Your task to perform on an android device: allow cookies in the chrome app Image 0: 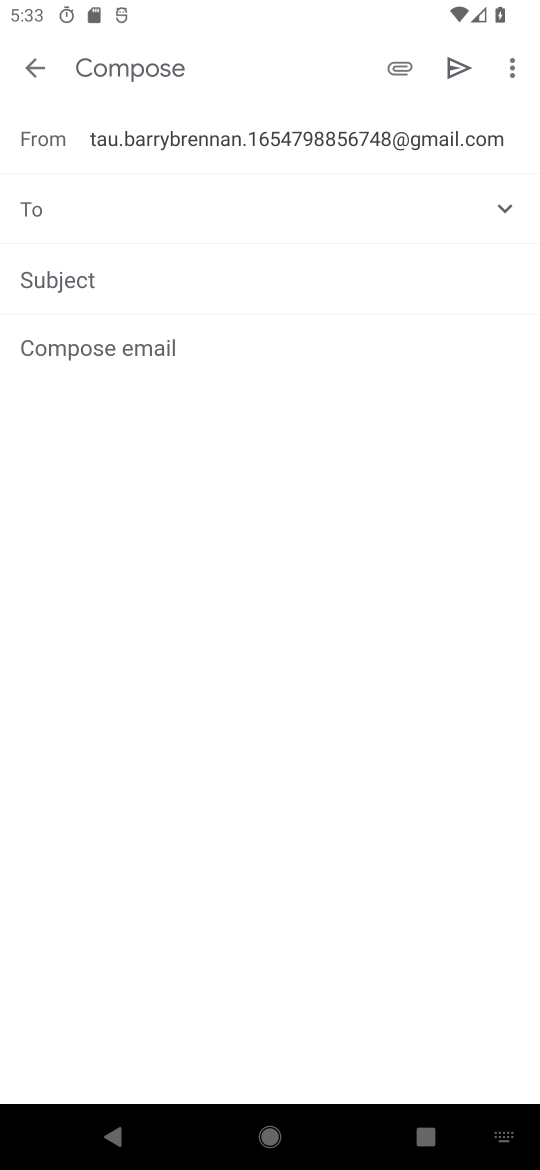
Step 0: press home button
Your task to perform on an android device: allow cookies in the chrome app Image 1: 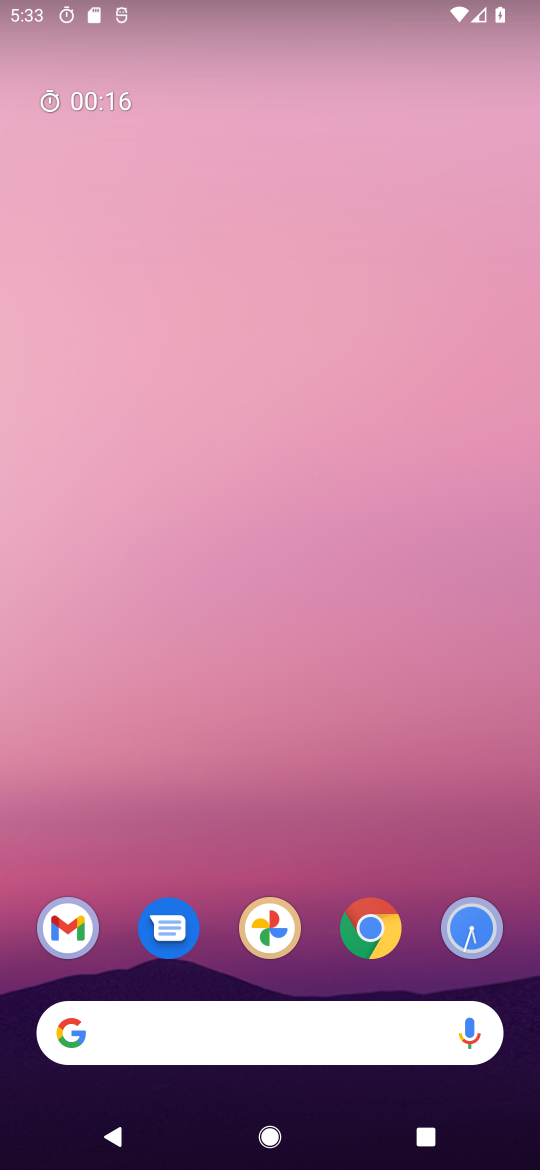
Step 1: click (365, 928)
Your task to perform on an android device: allow cookies in the chrome app Image 2: 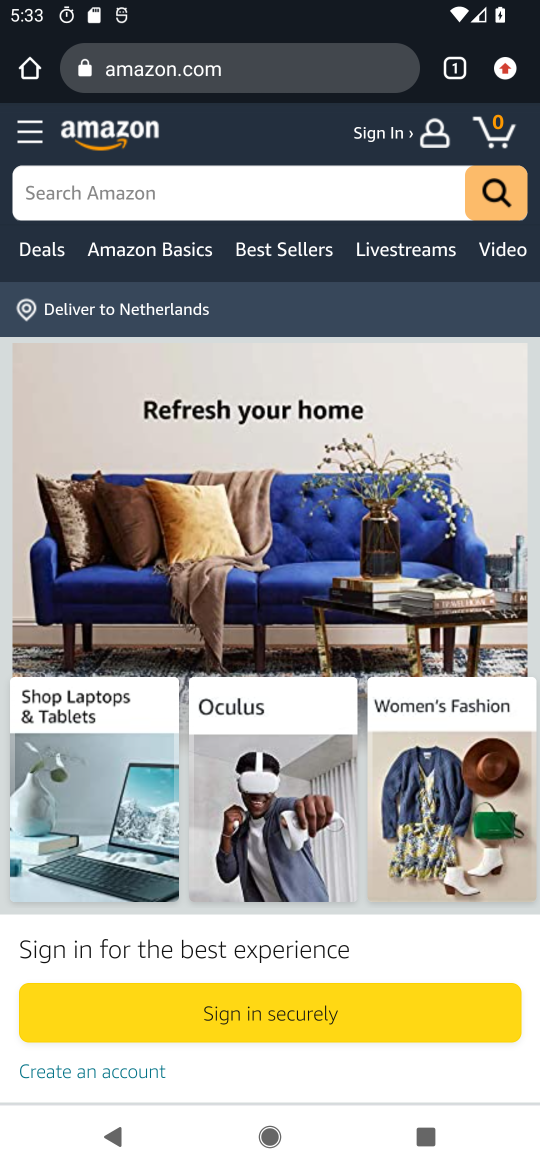
Step 2: click (508, 66)
Your task to perform on an android device: allow cookies in the chrome app Image 3: 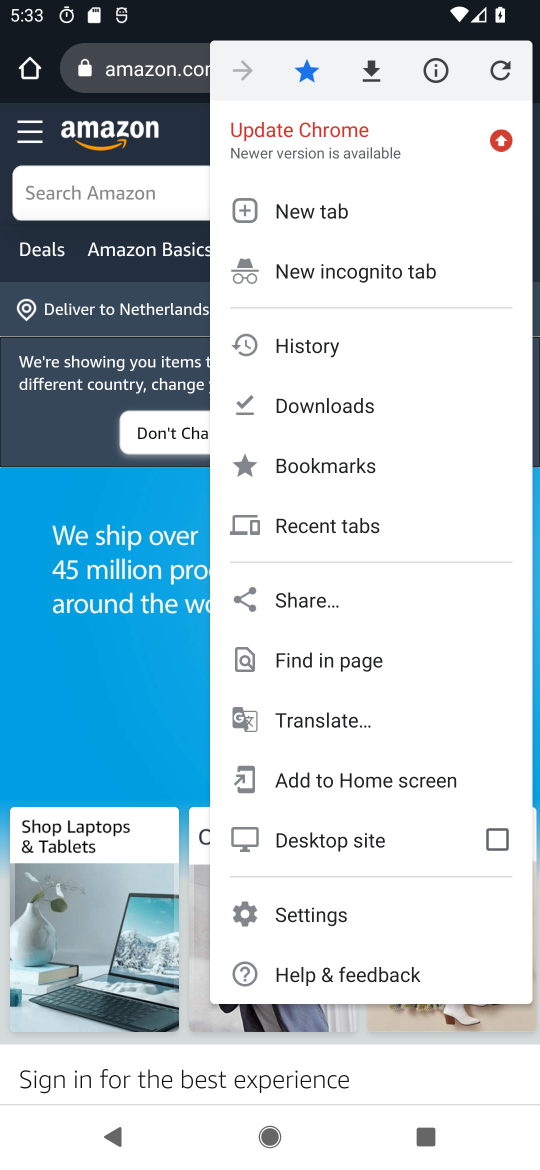
Step 3: click (318, 915)
Your task to perform on an android device: allow cookies in the chrome app Image 4: 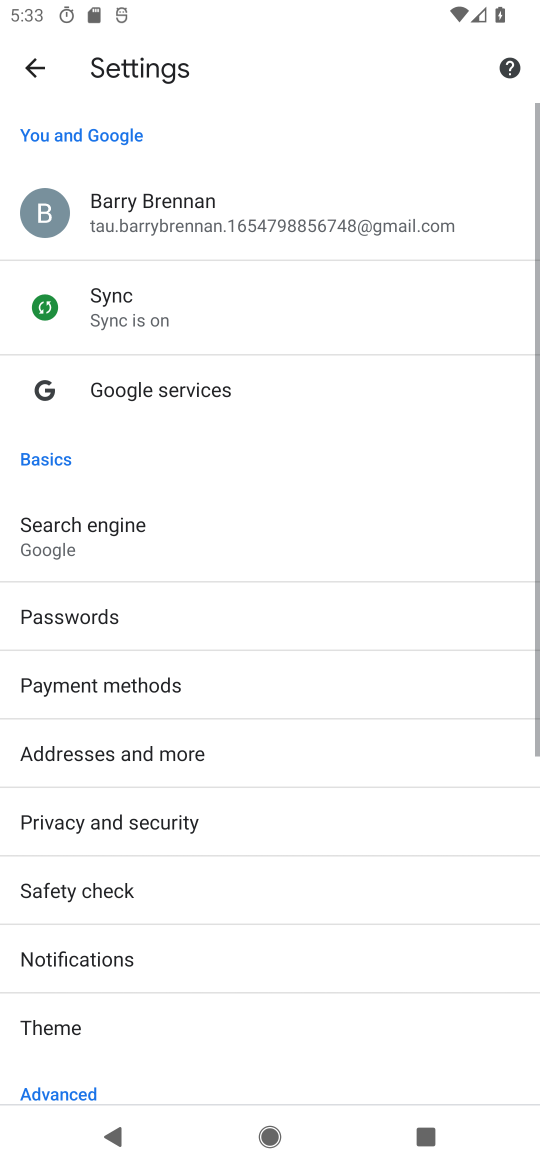
Step 4: drag from (178, 886) to (196, 422)
Your task to perform on an android device: allow cookies in the chrome app Image 5: 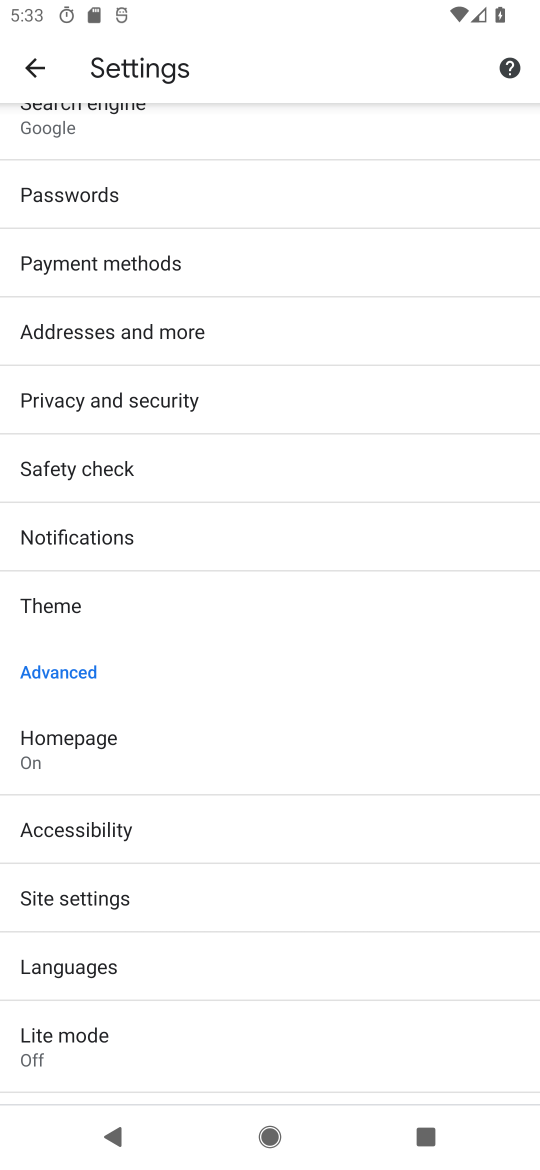
Step 5: click (92, 897)
Your task to perform on an android device: allow cookies in the chrome app Image 6: 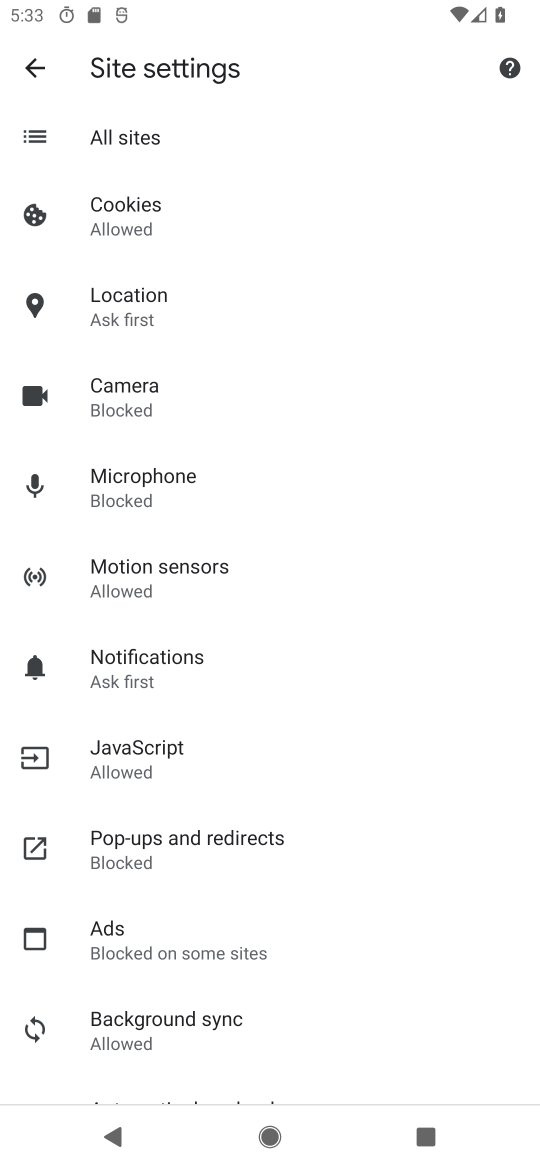
Step 6: click (132, 229)
Your task to perform on an android device: allow cookies in the chrome app Image 7: 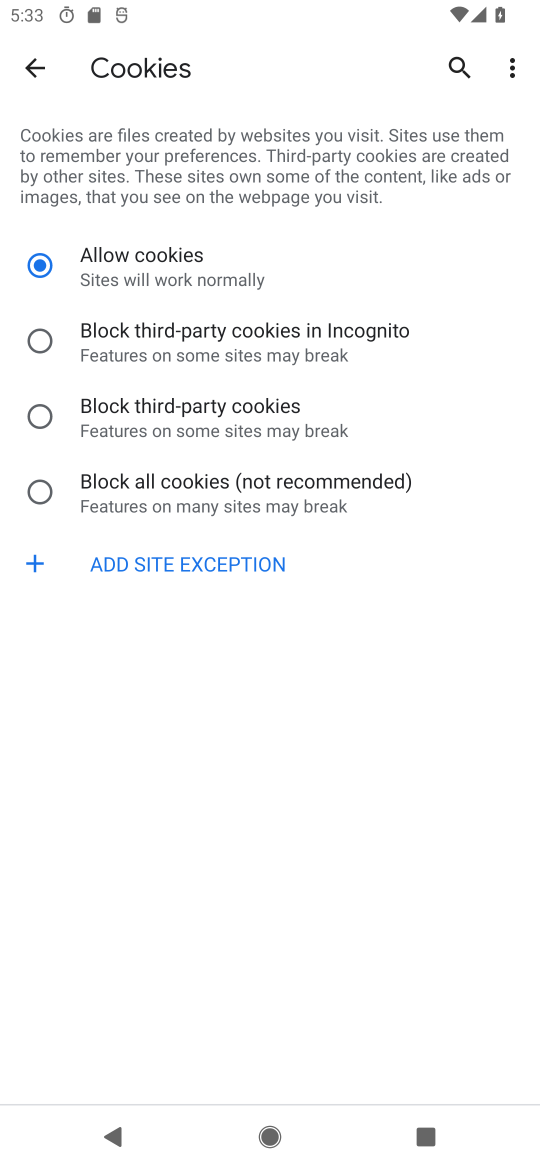
Step 7: task complete